Your task to perform on an android device: turn off location Image 0: 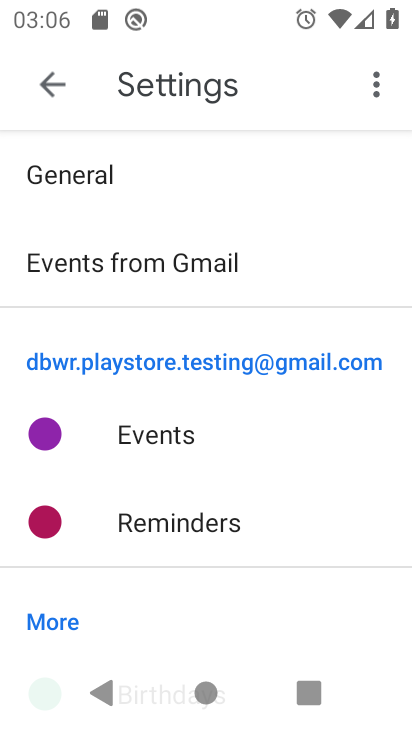
Step 0: press home button
Your task to perform on an android device: turn off location Image 1: 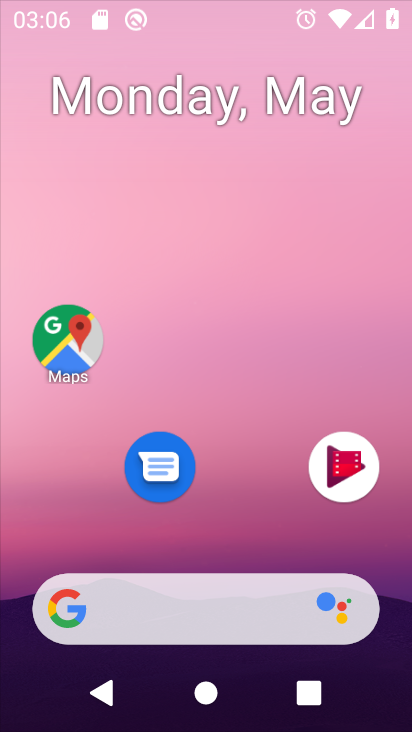
Step 1: drag from (203, 488) to (237, 224)
Your task to perform on an android device: turn off location Image 2: 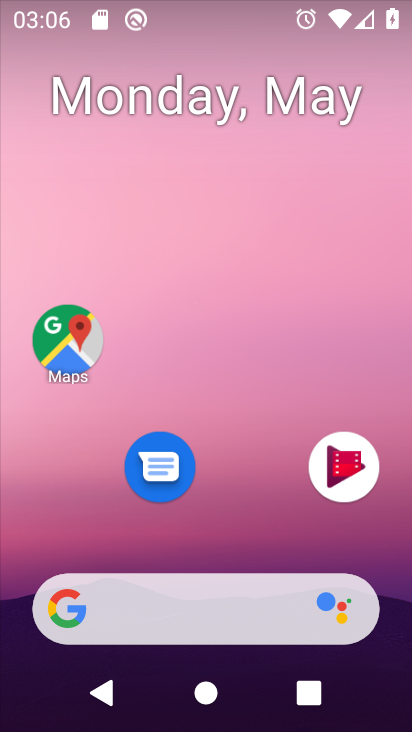
Step 2: drag from (236, 538) to (273, 142)
Your task to perform on an android device: turn off location Image 3: 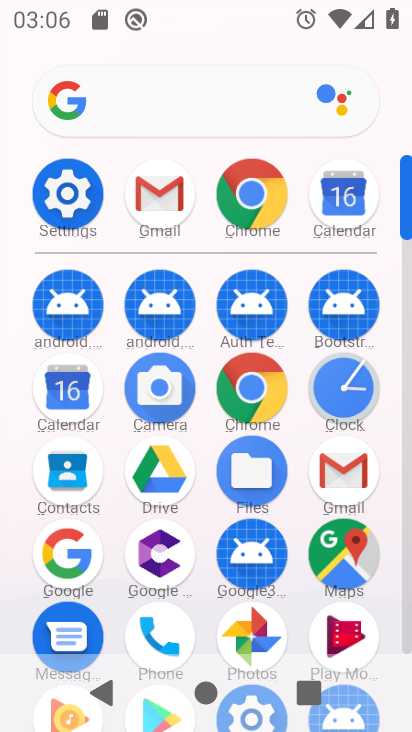
Step 3: click (72, 194)
Your task to perform on an android device: turn off location Image 4: 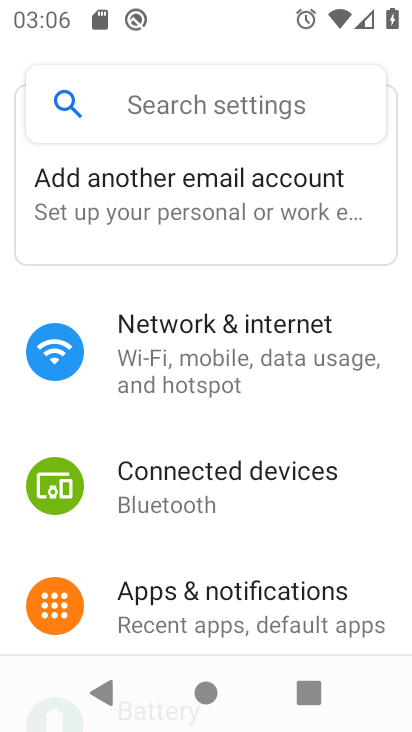
Step 4: drag from (227, 535) to (294, 165)
Your task to perform on an android device: turn off location Image 5: 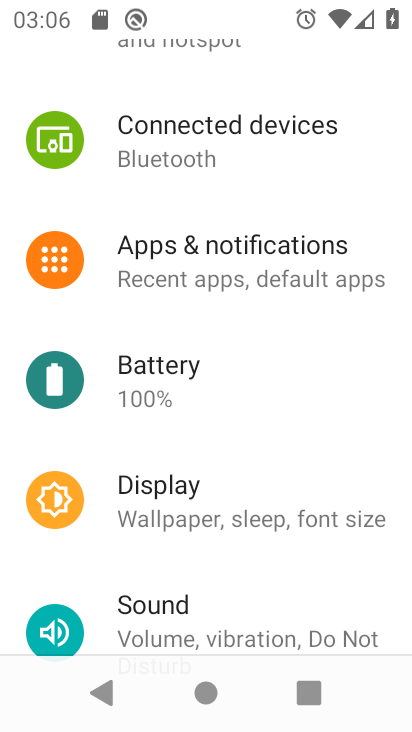
Step 5: drag from (180, 558) to (273, 221)
Your task to perform on an android device: turn off location Image 6: 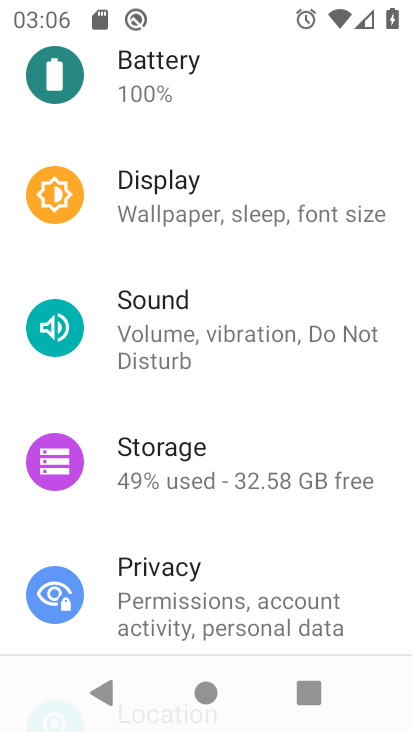
Step 6: drag from (174, 556) to (241, 214)
Your task to perform on an android device: turn off location Image 7: 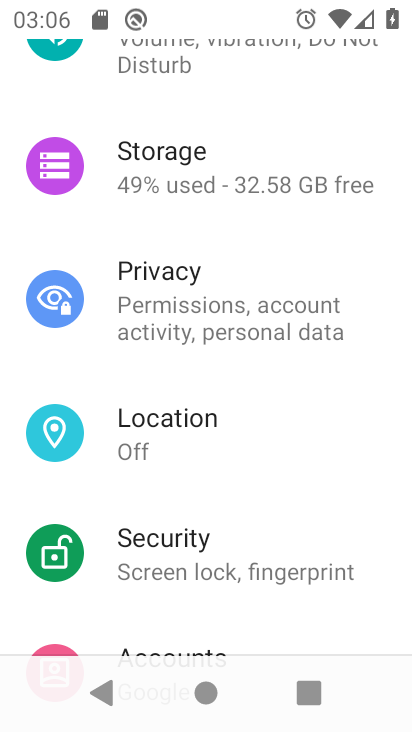
Step 7: click (174, 417)
Your task to perform on an android device: turn off location Image 8: 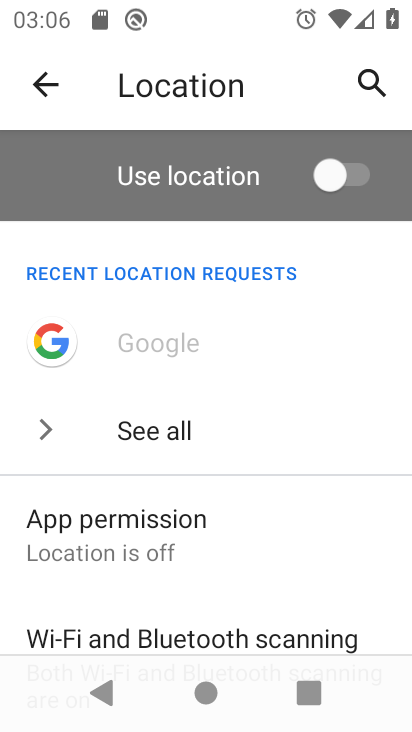
Step 8: task complete